Your task to perform on an android device: check battery use Image 0: 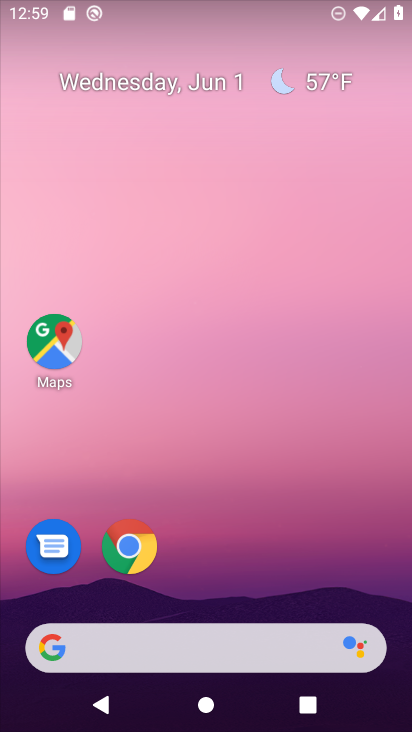
Step 0: drag from (202, 625) to (359, 24)
Your task to perform on an android device: check battery use Image 1: 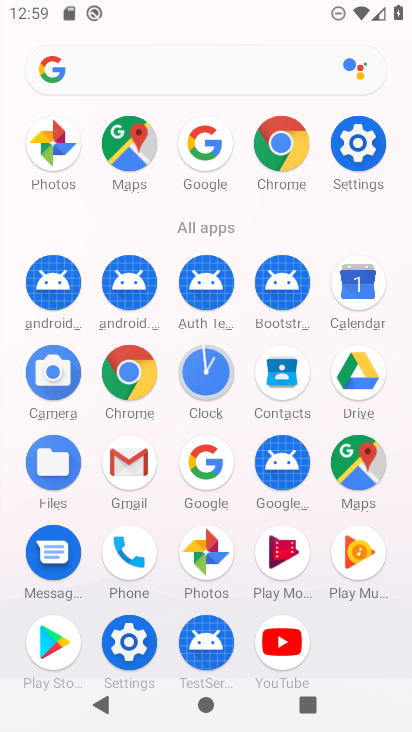
Step 1: click (354, 148)
Your task to perform on an android device: check battery use Image 2: 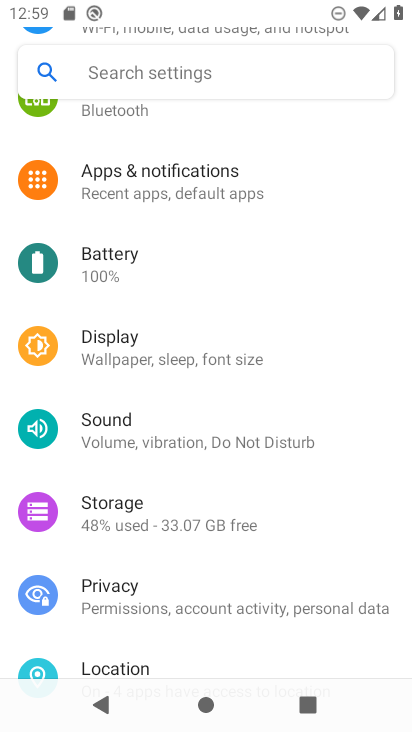
Step 2: click (109, 285)
Your task to perform on an android device: check battery use Image 3: 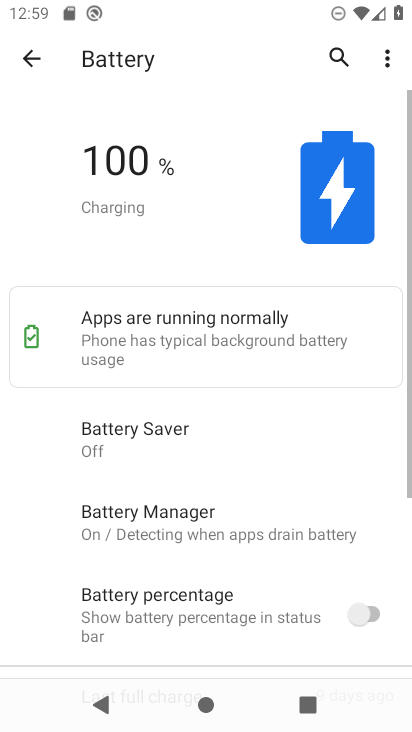
Step 3: click (381, 65)
Your task to perform on an android device: check battery use Image 4: 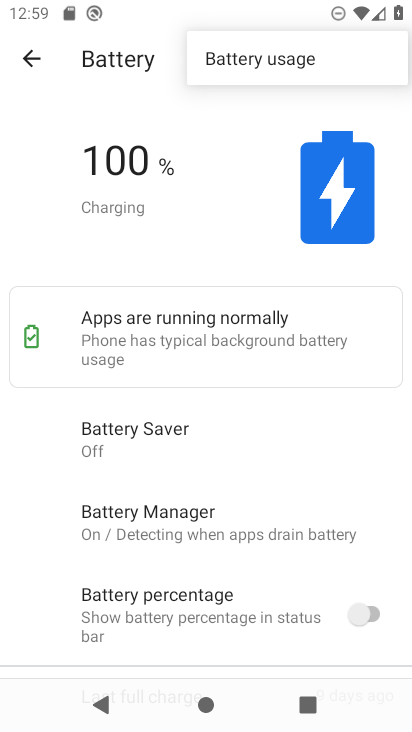
Step 4: click (283, 69)
Your task to perform on an android device: check battery use Image 5: 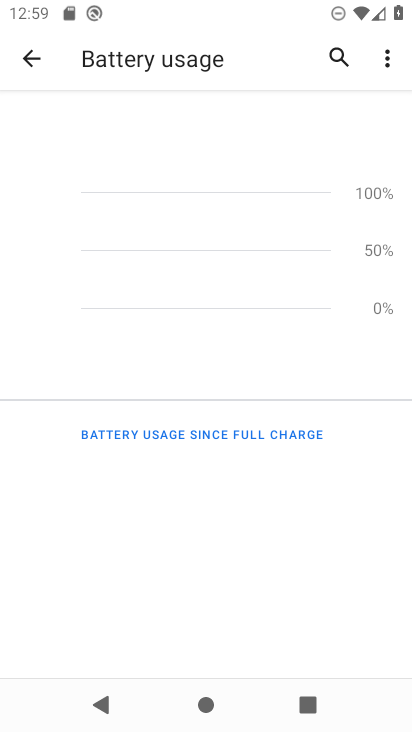
Step 5: task complete